Your task to perform on an android device: turn on location history Image 0: 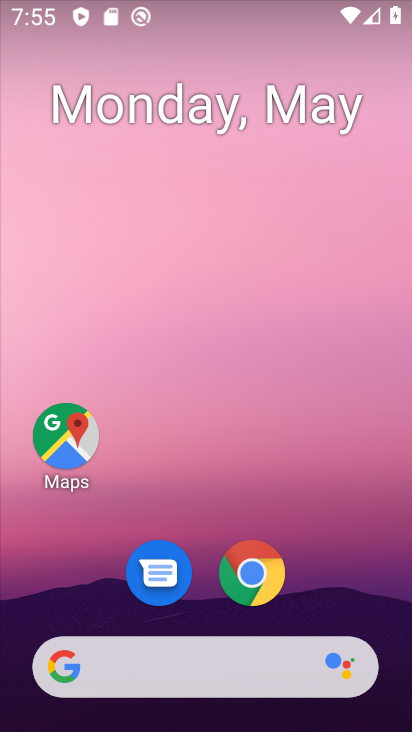
Step 0: drag from (339, 570) to (310, 83)
Your task to perform on an android device: turn on location history Image 1: 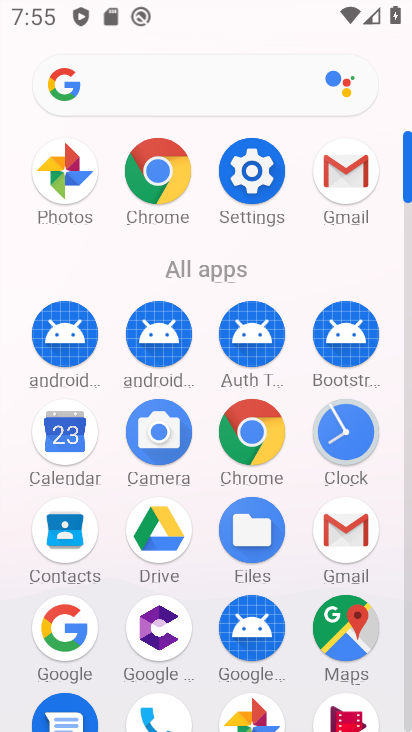
Step 1: click (269, 160)
Your task to perform on an android device: turn on location history Image 2: 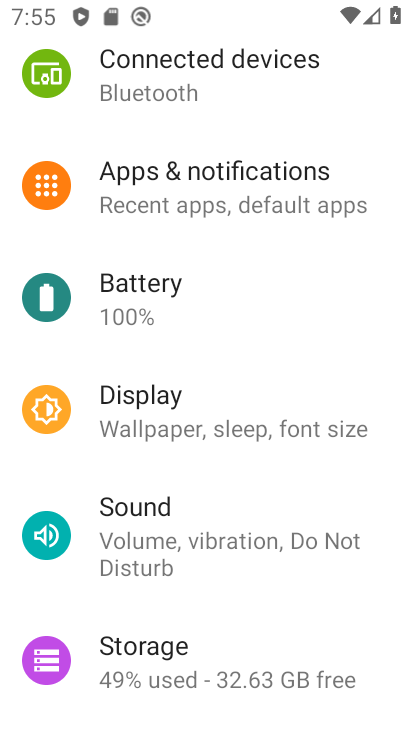
Step 2: drag from (231, 526) to (258, 143)
Your task to perform on an android device: turn on location history Image 3: 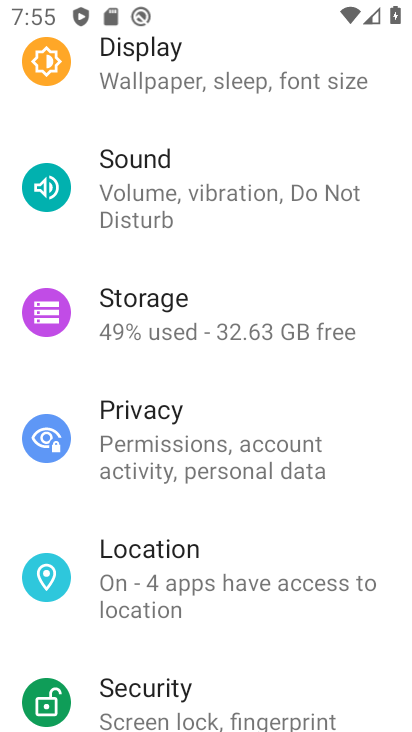
Step 3: click (241, 615)
Your task to perform on an android device: turn on location history Image 4: 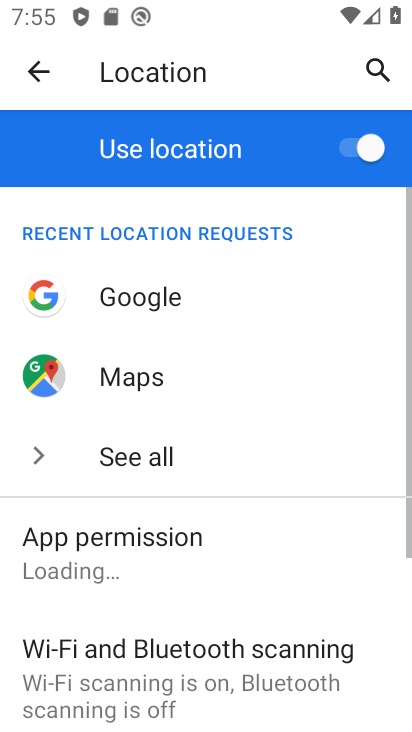
Step 4: drag from (267, 599) to (293, 269)
Your task to perform on an android device: turn on location history Image 5: 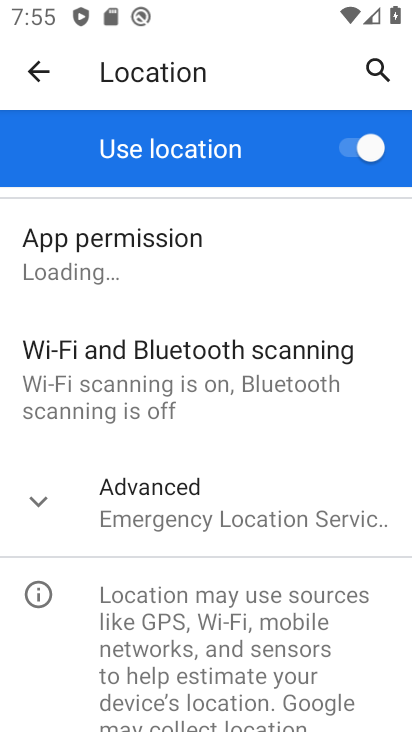
Step 5: click (277, 479)
Your task to perform on an android device: turn on location history Image 6: 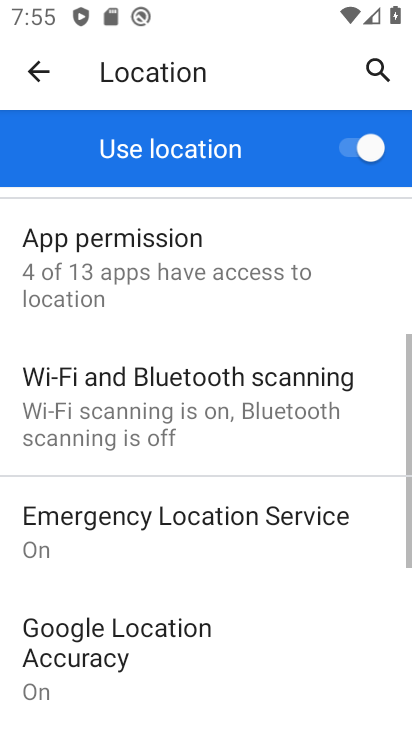
Step 6: drag from (216, 591) to (301, 322)
Your task to perform on an android device: turn on location history Image 7: 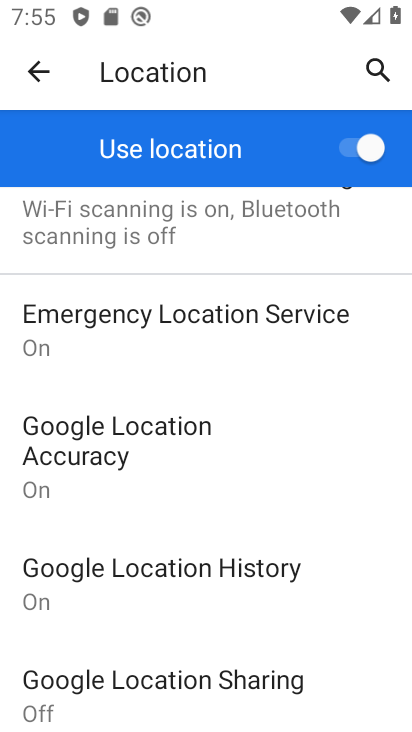
Step 7: click (309, 590)
Your task to perform on an android device: turn on location history Image 8: 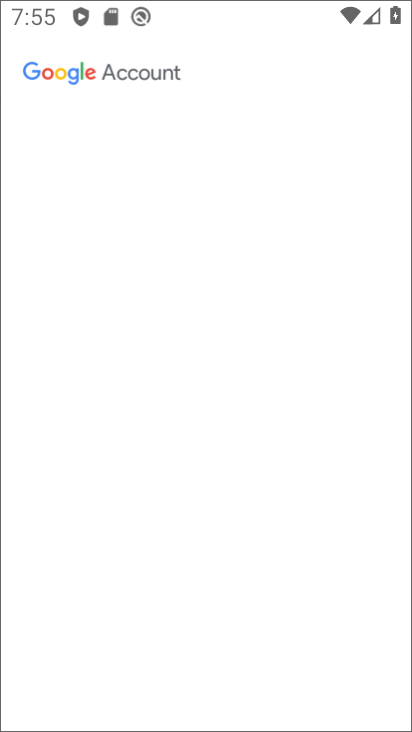
Step 8: task complete